Your task to perform on an android device: Open Amazon Image 0: 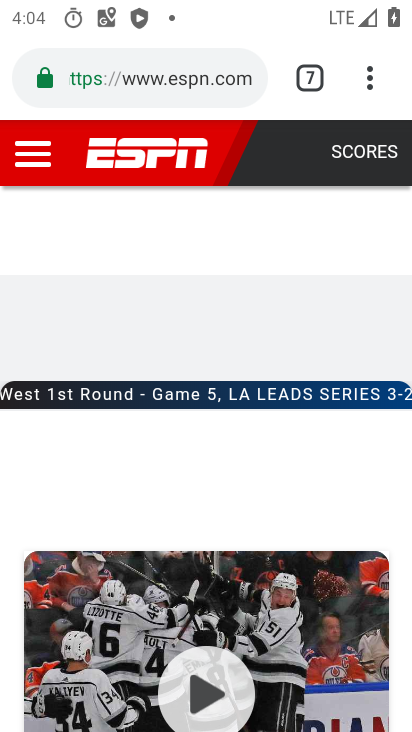
Step 0: press home button
Your task to perform on an android device: Open Amazon Image 1: 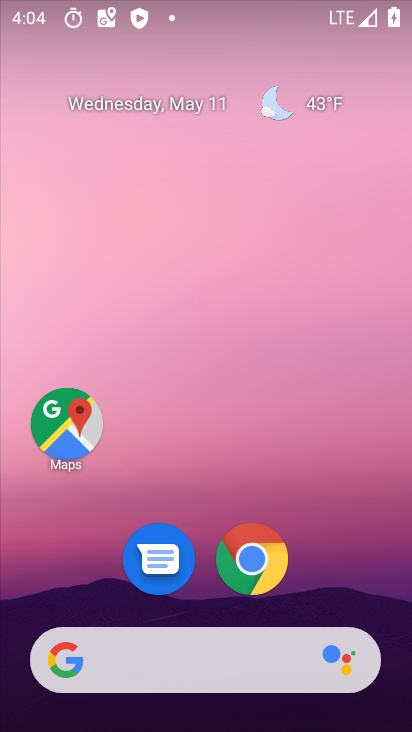
Step 1: click (263, 570)
Your task to perform on an android device: Open Amazon Image 2: 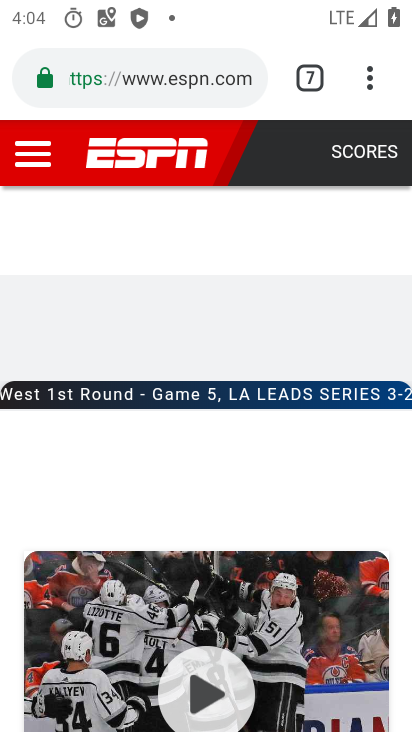
Step 2: click (313, 64)
Your task to perform on an android device: Open Amazon Image 3: 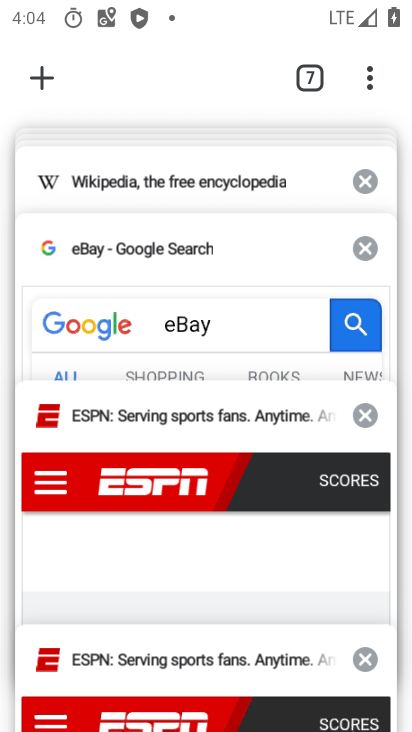
Step 3: drag from (193, 268) to (212, 575)
Your task to perform on an android device: Open Amazon Image 4: 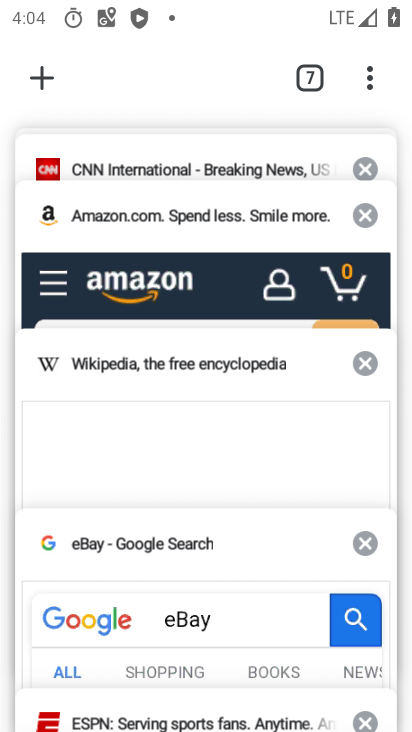
Step 4: click (156, 252)
Your task to perform on an android device: Open Amazon Image 5: 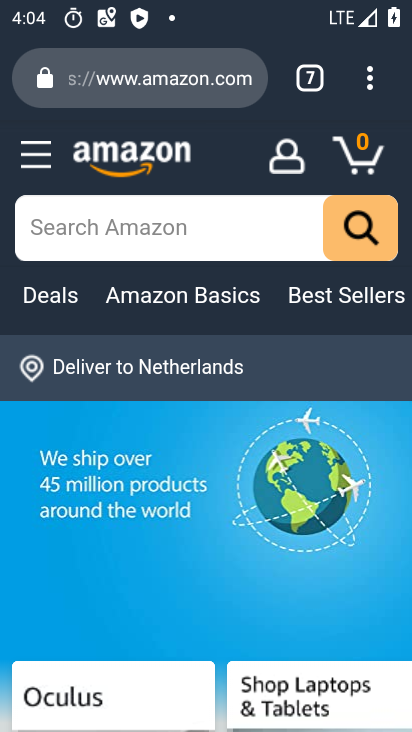
Step 5: task complete